Your task to perform on an android device: Turn on the flashlight Image 0: 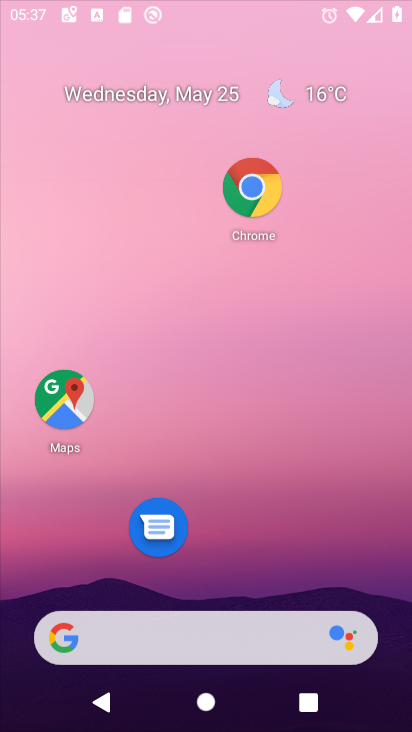
Step 0: drag from (305, 584) to (307, 110)
Your task to perform on an android device: Turn on the flashlight Image 1: 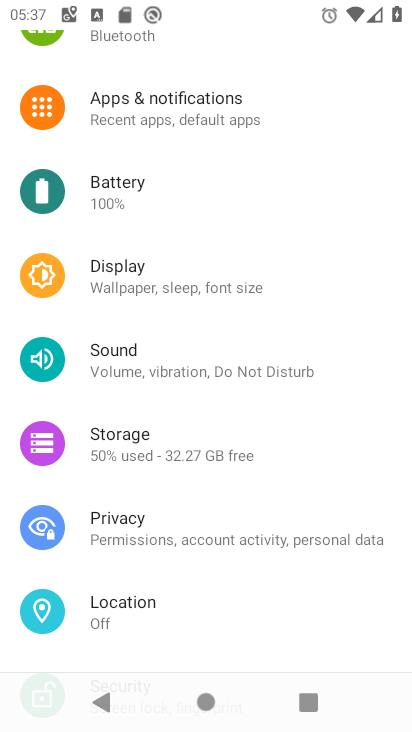
Step 1: task complete